Your task to perform on an android device: check android version Image 0: 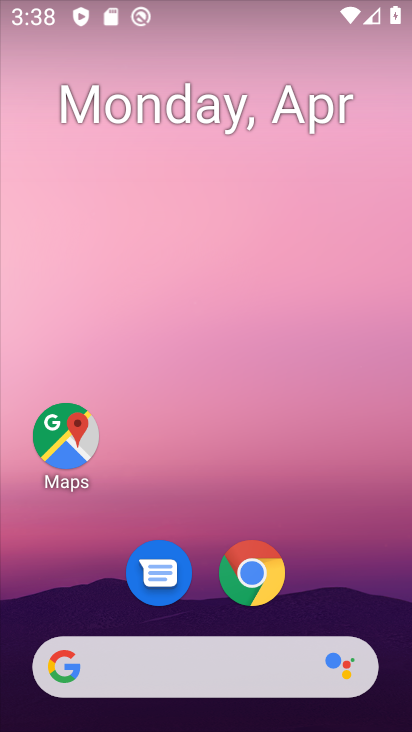
Step 0: drag from (337, 584) to (334, 125)
Your task to perform on an android device: check android version Image 1: 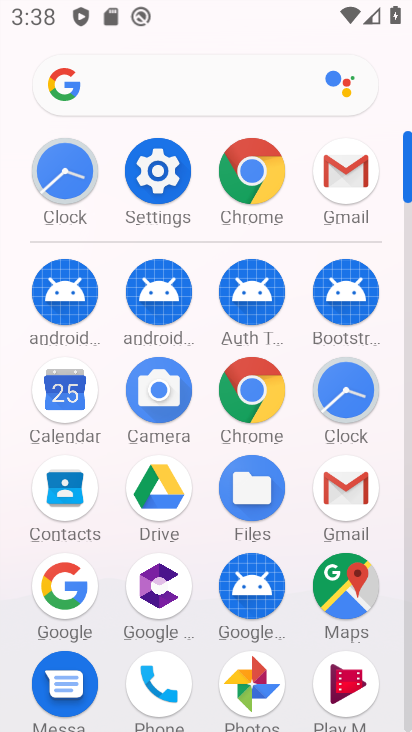
Step 1: click (251, 395)
Your task to perform on an android device: check android version Image 2: 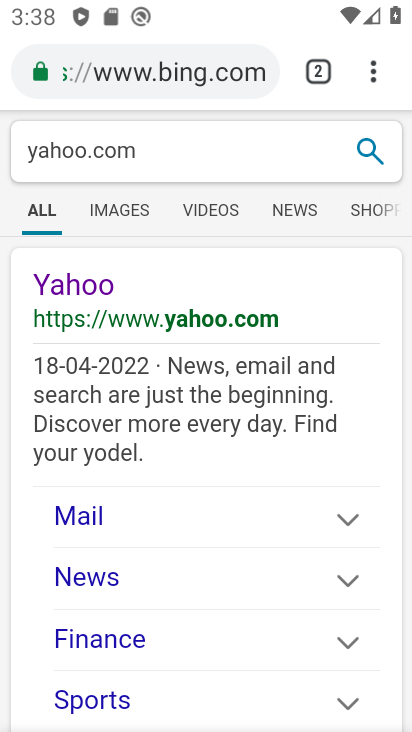
Step 2: click (213, 66)
Your task to perform on an android device: check android version Image 3: 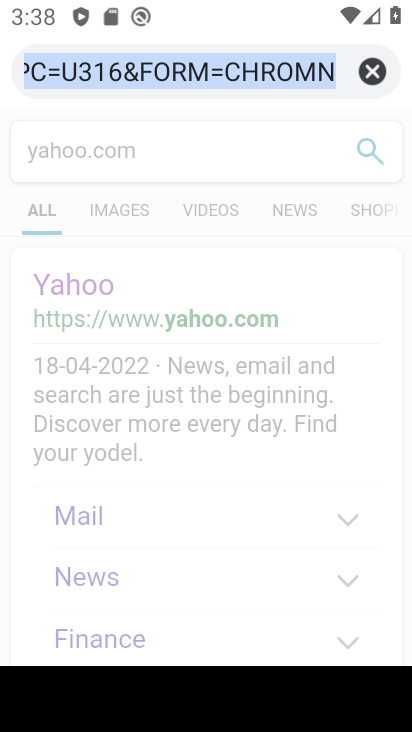
Step 3: click (360, 65)
Your task to perform on an android device: check android version Image 4: 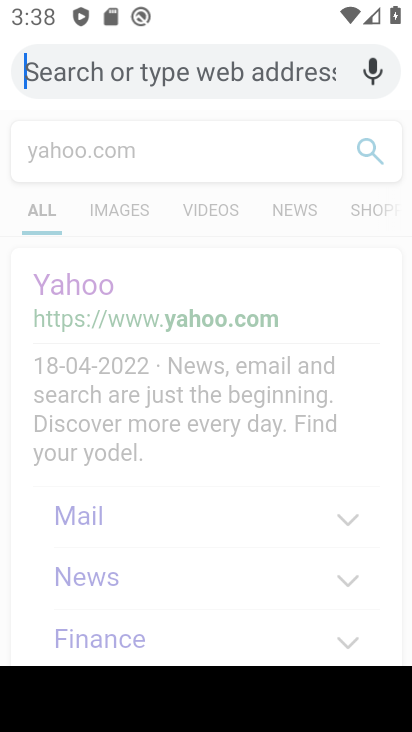
Step 4: press home button
Your task to perform on an android device: check android version Image 5: 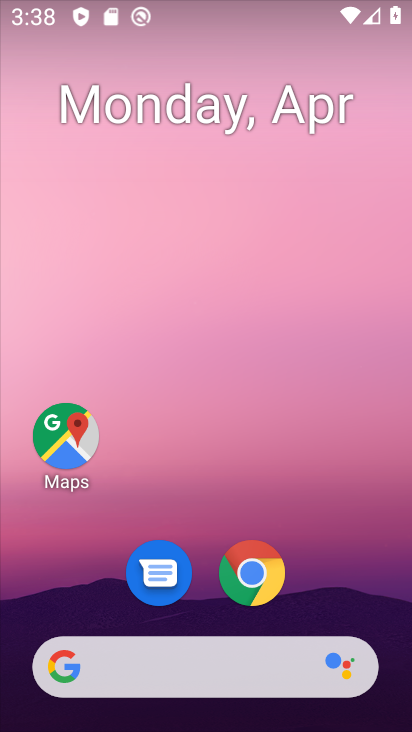
Step 5: drag from (362, 474) to (361, 100)
Your task to perform on an android device: check android version Image 6: 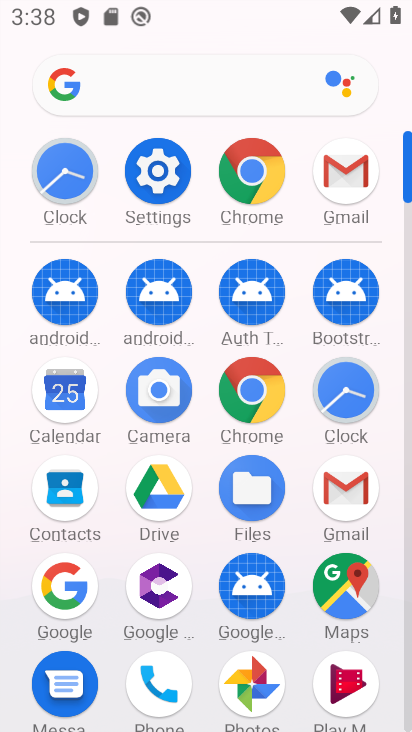
Step 6: click (167, 174)
Your task to perform on an android device: check android version Image 7: 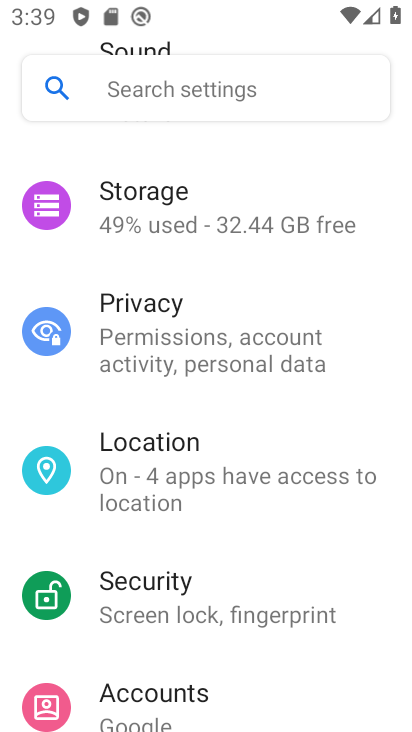
Step 7: drag from (318, 575) to (317, 394)
Your task to perform on an android device: check android version Image 8: 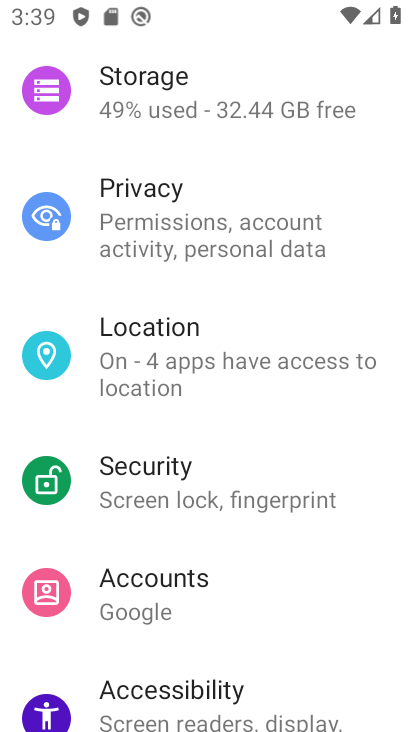
Step 8: drag from (342, 607) to (345, 393)
Your task to perform on an android device: check android version Image 9: 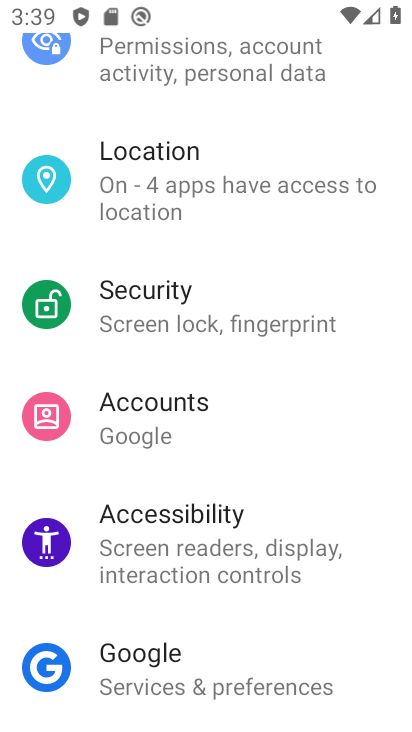
Step 9: drag from (331, 622) to (334, 388)
Your task to perform on an android device: check android version Image 10: 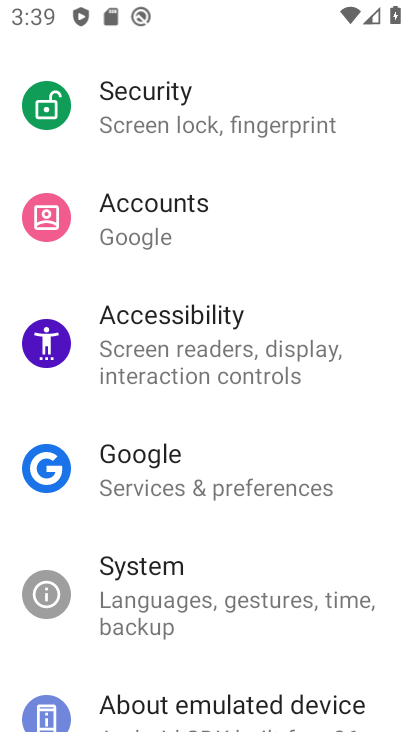
Step 10: click (274, 618)
Your task to perform on an android device: check android version Image 11: 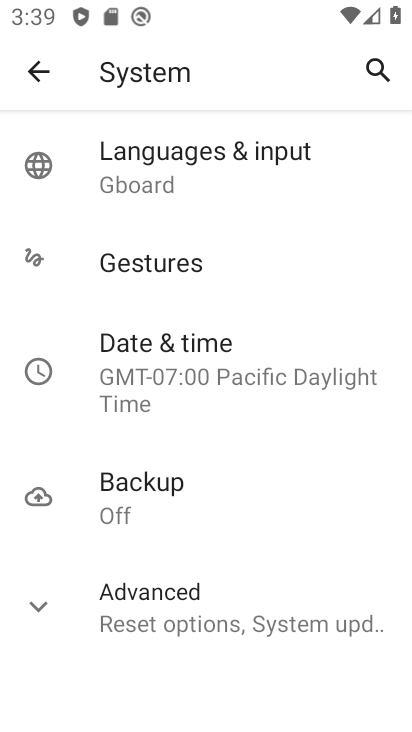
Step 11: click (269, 636)
Your task to perform on an android device: check android version Image 12: 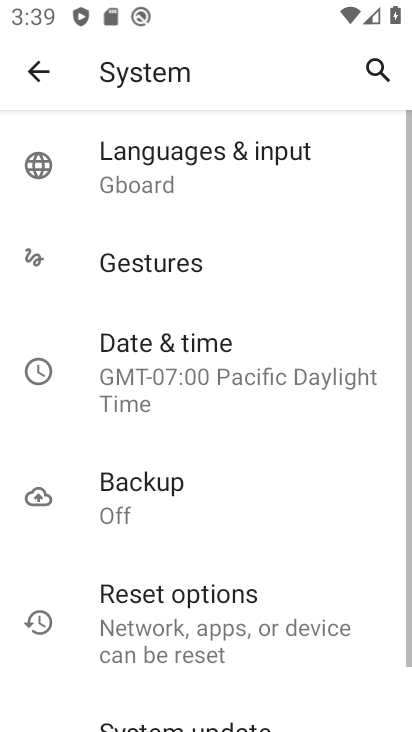
Step 12: drag from (286, 663) to (290, 309)
Your task to perform on an android device: check android version Image 13: 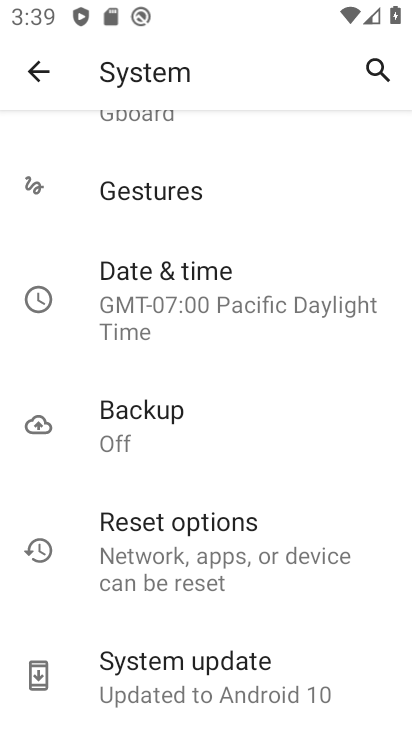
Step 13: click (196, 685)
Your task to perform on an android device: check android version Image 14: 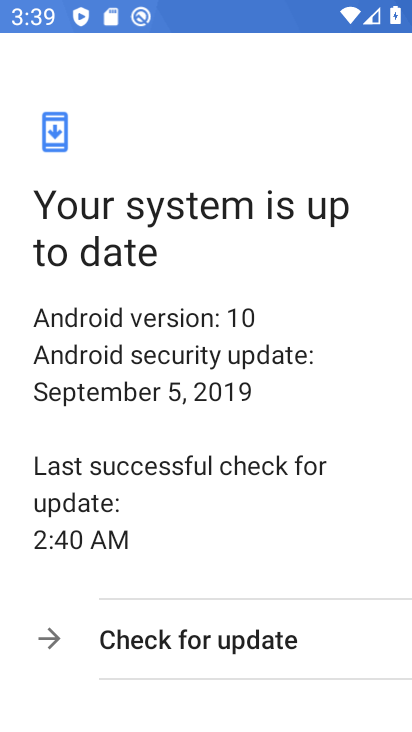
Step 14: task complete